Your task to perform on an android device: Open location settings Image 0: 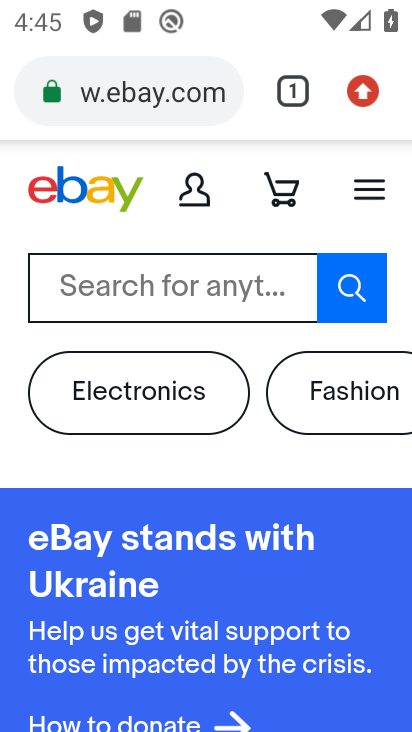
Step 0: press home button
Your task to perform on an android device: Open location settings Image 1: 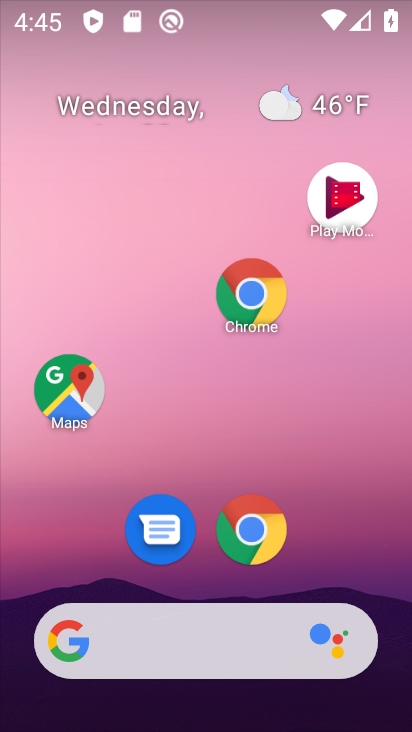
Step 1: drag from (333, 448) to (344, 179)
Your task to perform on an android device: Open location settings Image 2: 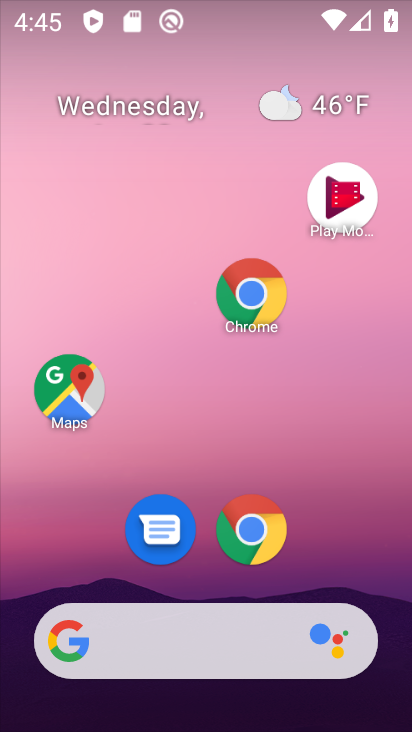
Step 2: drag from (331, 483) to (356, 121)
Your task to perform on an android device: Open location settings Image 3: 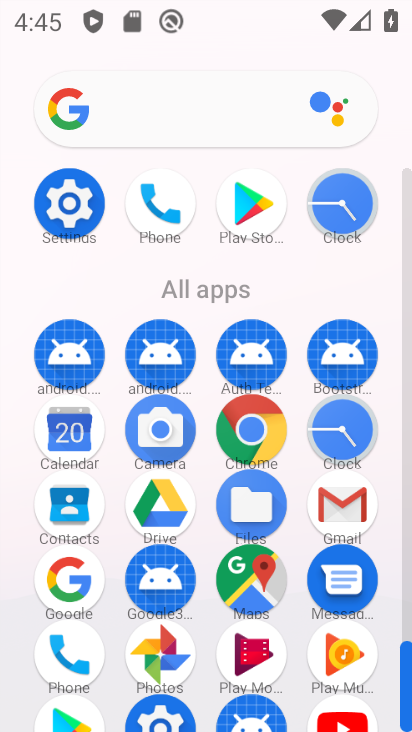
Step 3: click (86, 210)
Your task to perform on an android device: Open location settings Image 4: 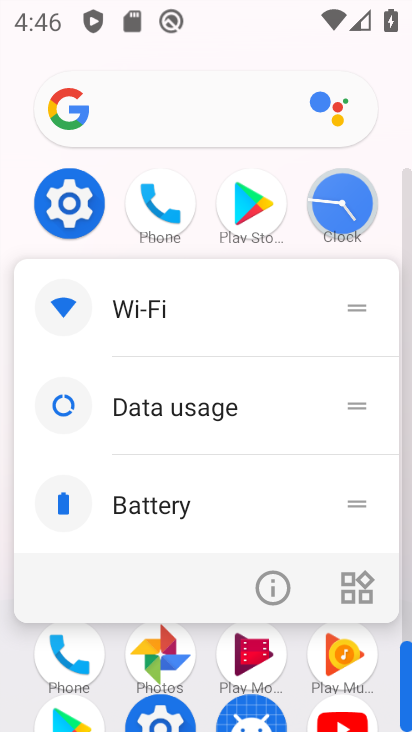
Step 4: click (84, 209)
Your task to perform on an android device: Open location settings Image 5: 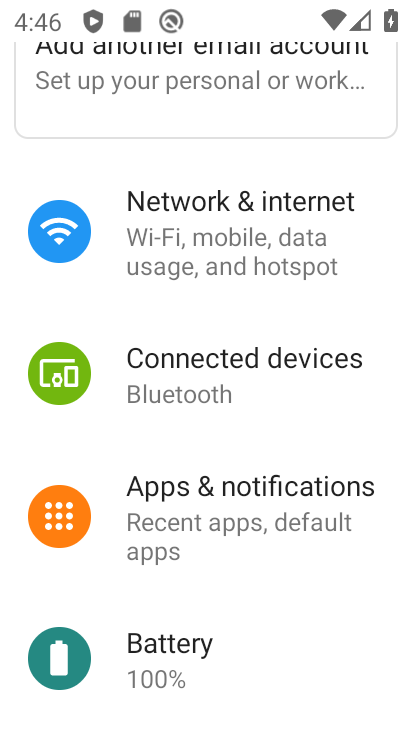
Step 5: drag from (246, 623) to (273, 178)
Your task to perform on an android device: Open location settings Image 6: 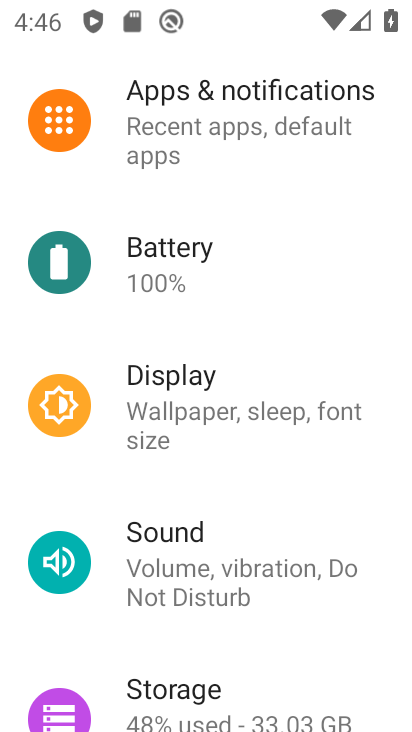
Step 6: drag from (220, 678) to (284, 293)
Your task to perform on an android device: Open location settings Image 7: 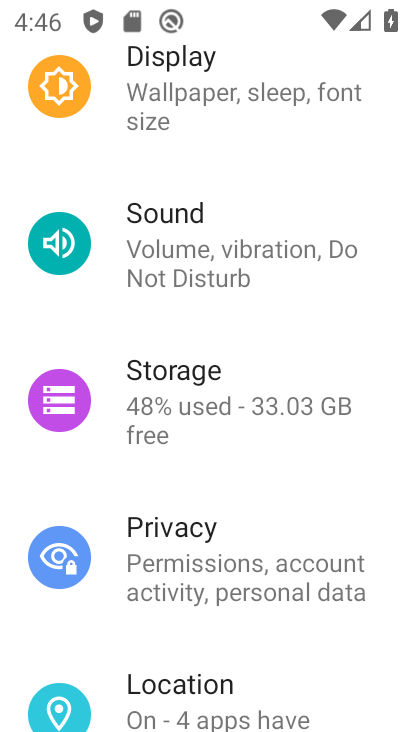
Step 7: click (190, 697)
Your task to perform on an android device: Open location settings Image 8: 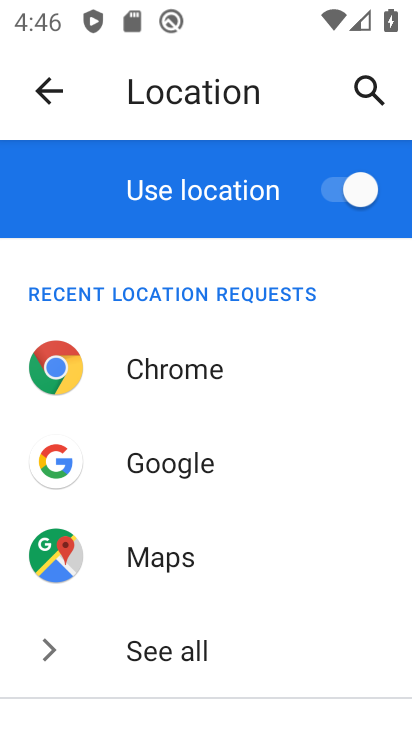
Step 8: task complete